Your task to perform on an android device: Show me popular videos on Youtube Image 0: 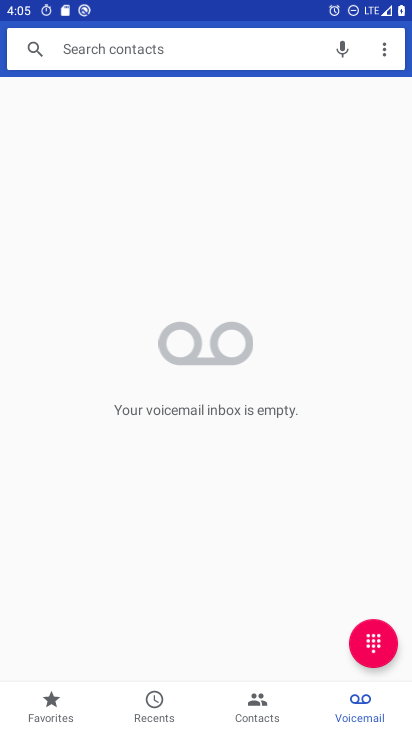
Step 0: press home button
Your task to perform on an android device: Show me popular videos on Youtube Image 1: 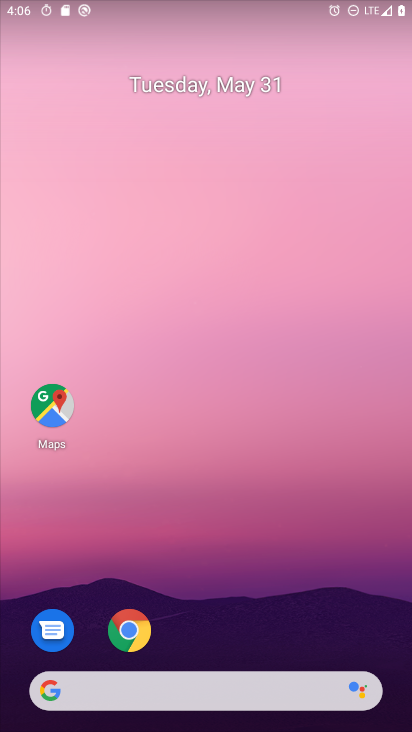
Step 1: drag from (167, 633) to (257, 3)
Your task to perform on an android device: Show me popular videos on Youtube Image 2: 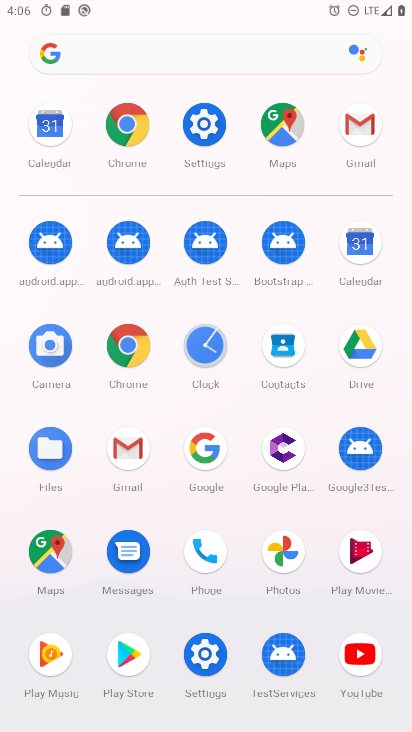
Step 2: click (361, 653)
Your task to perform on an android device: Show me popular videos on Youtube Image 3: 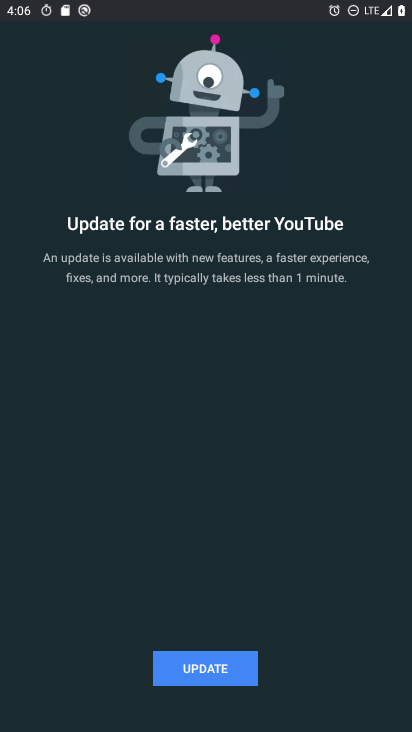
Step 3: click (238, 679)
Your task to perform on an android device: Show me popular videos on Youtube Image 4: 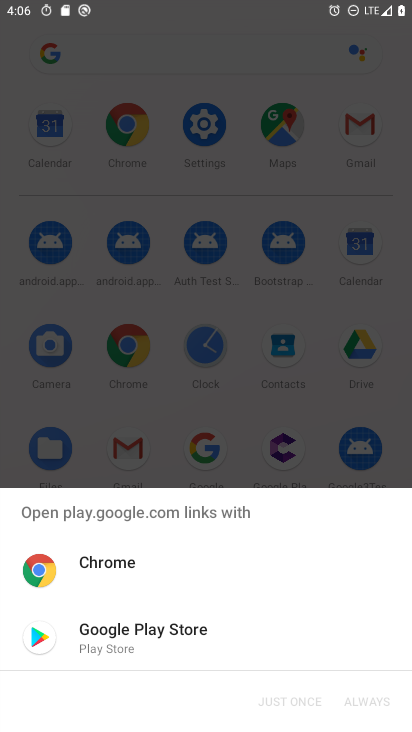
Step 4: click (114, 642)
Your task to perform on an android device: Show me popular videos on Youtube Image 5: 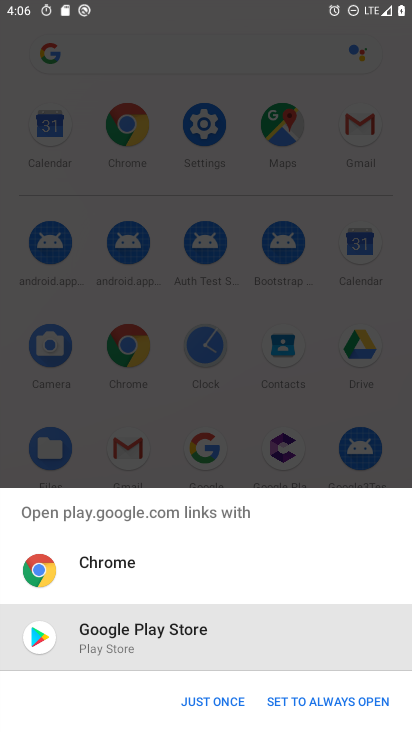
Step 5: click (217, 699)
Your task to perform on an android device: Show me popular videos on Youtube Image 6: 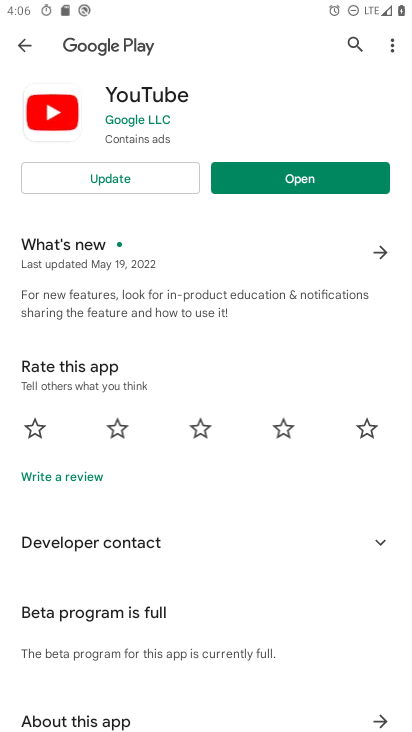
Step 6: click (157, 175)
Your task to perform on an android device: Show me popular videos on Youtube Image 7: 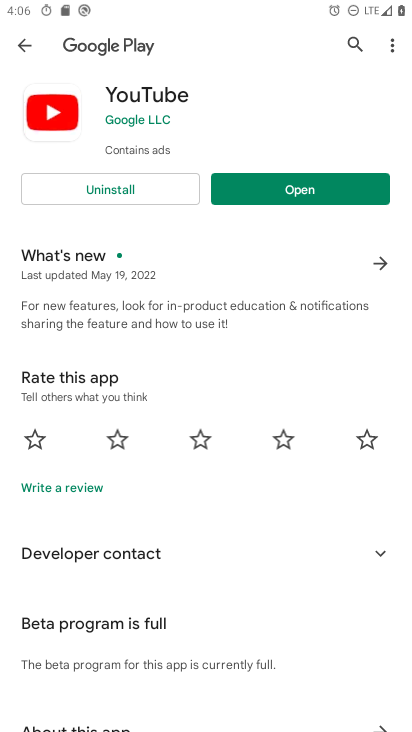
Step 7: click (268, 184)
Your task to perform on an android device: Show me popular videos on Youtube Image 8: 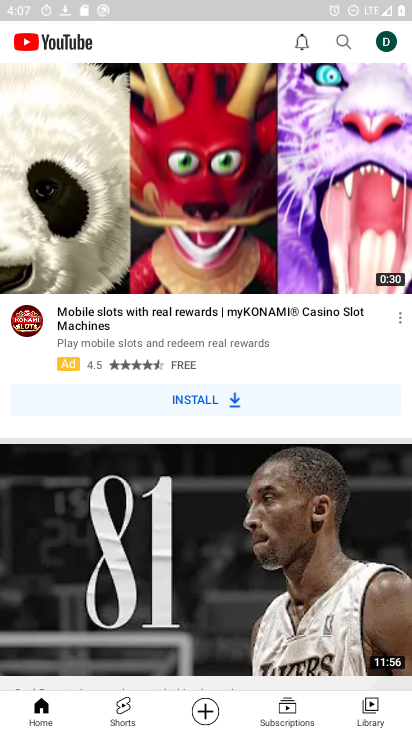
Step 8: task complete